Your task to perform on an android device: Do I have any events today? Image 0: 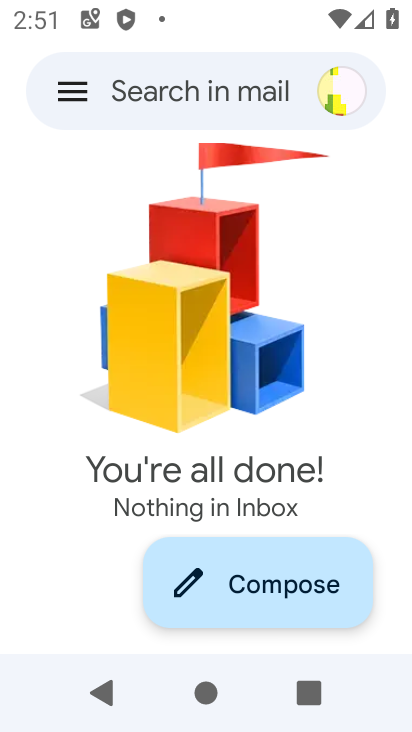
Step 0: task complete